Your task to perform on an android device: Is it going to rain today? Image 0: 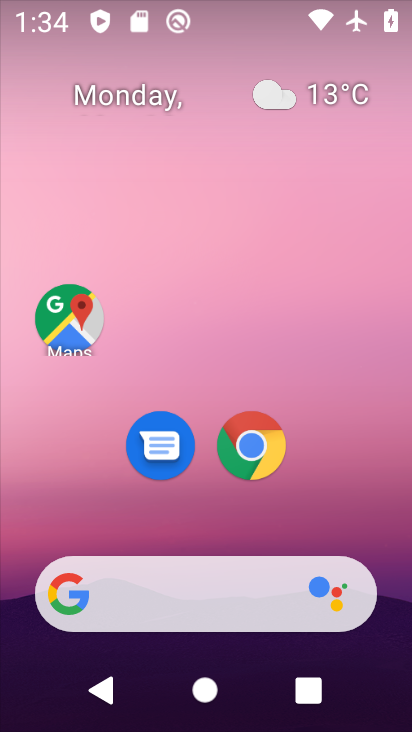
Step 0: drag from (392, 596) to (347, 75)
Your task to perform on an android device: Is it going to rain today? Image 1: 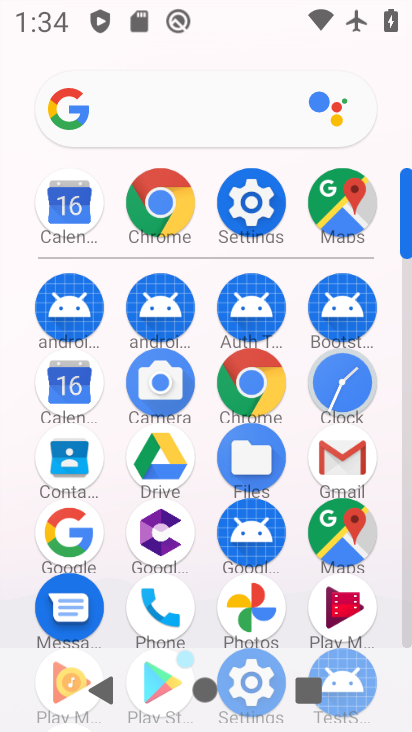
Step 1: click (57, 527)
Your task to perform on an android device: Is it going to rain today? Image 2: 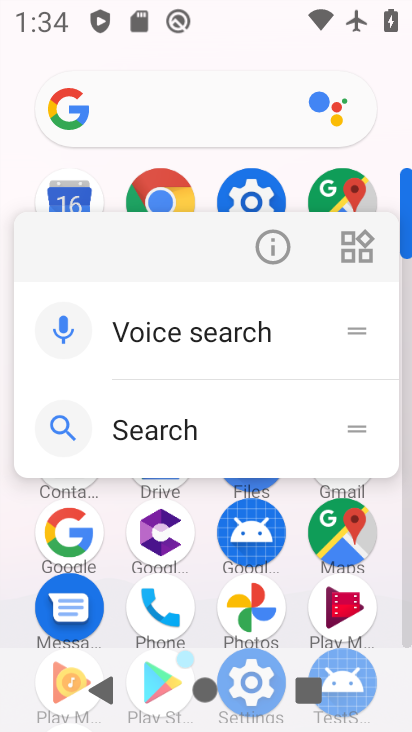
Step 2: click (70, 530)
Your task to perform on an android device: Is it going to rain today? Image 3: 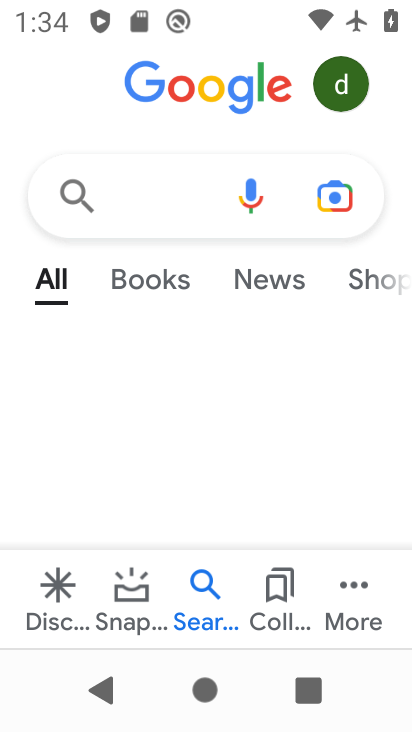
Step 3: click (131, 189)
Your task to perform on an android device: Is it going to rain today? Image 4: 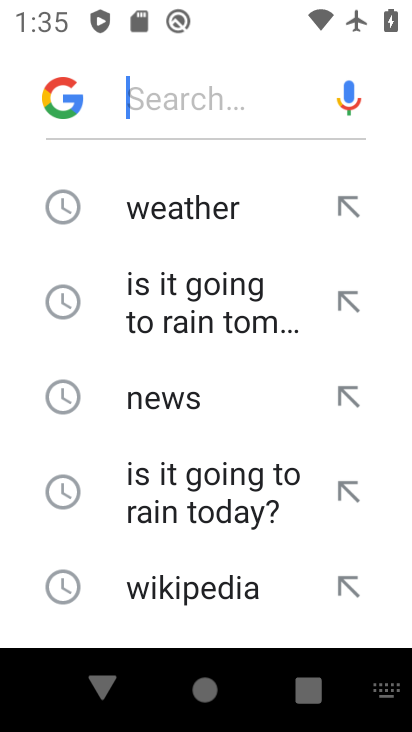
Step 4: click (191, 469)
Your task to perform on an android device: Is it going to rain today? Image 5: 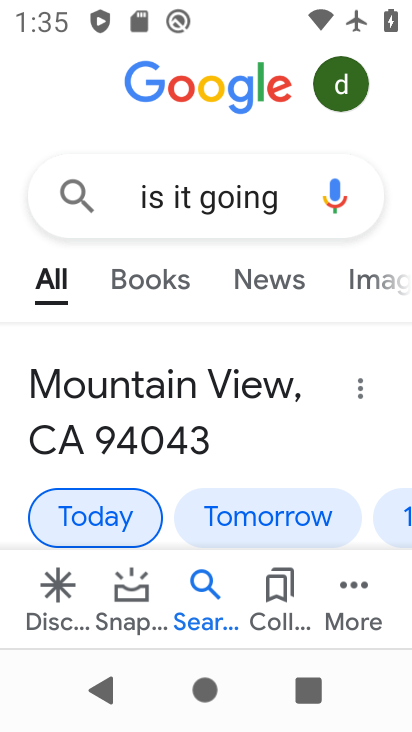
Step 5: task complete